Your task to perform on an android device: empty trash in the gmail app Image 0: 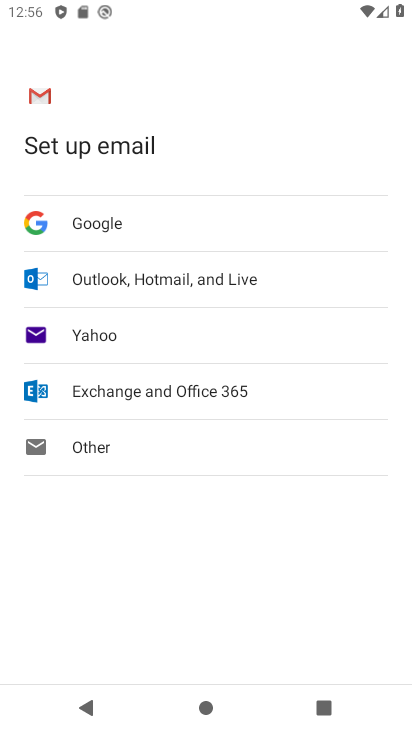
Step 0: press home button
Your task to perform on an android device: empty trash in the gmail app Image 1: 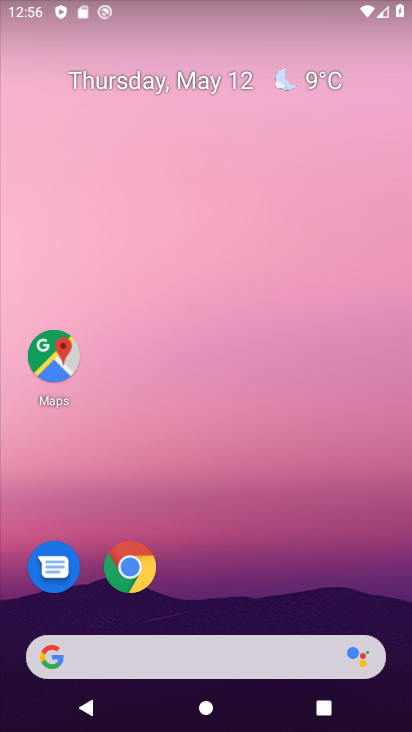
Step 1: drag from (216, 616) to (202, 11)
Your task to perform on an android device: empty trash in the gmail app Image 2: 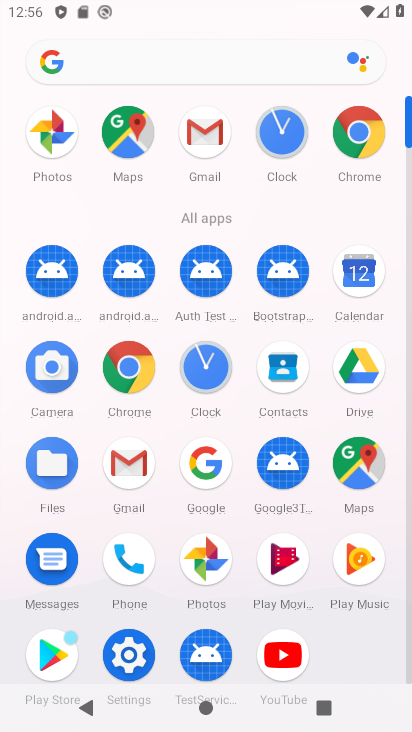
Step 2: click (124, 450)
Your task to perform on an android device: empty trash in the gmail app Image 3: 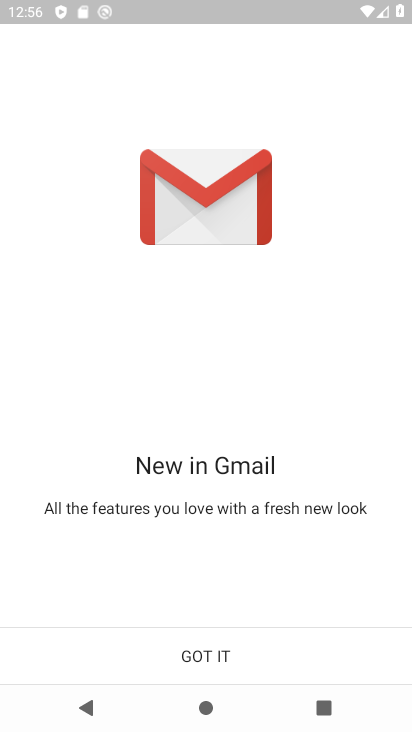
Step 3: click (218, 657)
Your task to perform on an android device: empty trash in the gmail app Image 4: 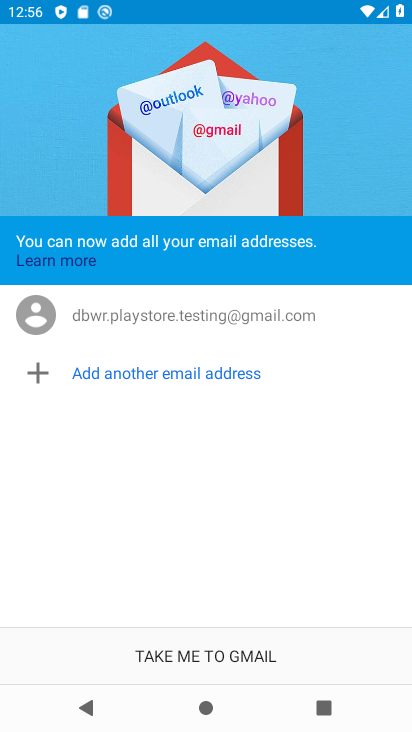
Step 4: click (199, 662)
Your task to perform on an android device: empty trash in the gmail app Image 5: 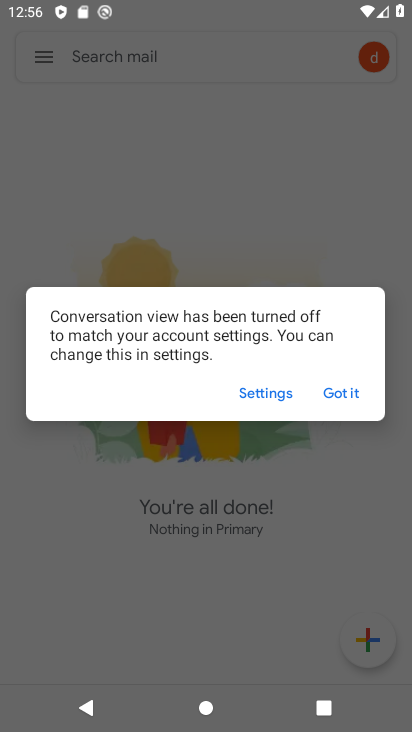
Step 5: click (338, 388)
Your task to perform on an android device: empty trash in the gmail app Image 6: 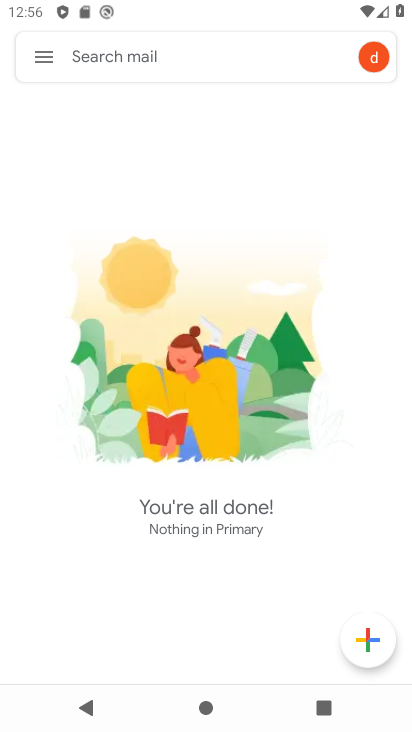
Step 6: click (45, 54)
Your task to perform on an android device: empty trash in the gmail app Image 7: 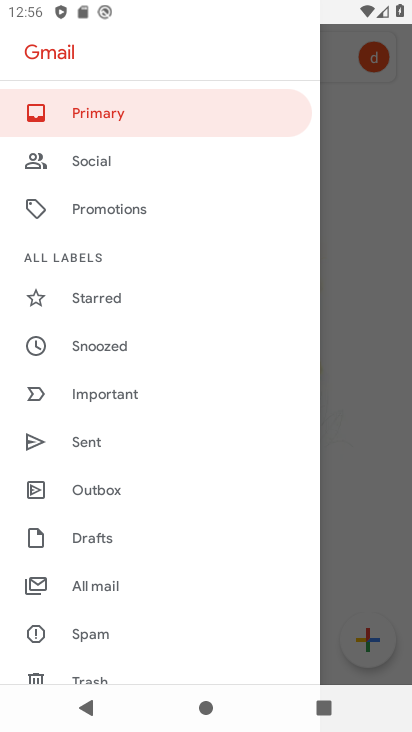
Step 7: click (109, 665)
Your task to perform on an android device: empty trash in the gmail app Image 8: 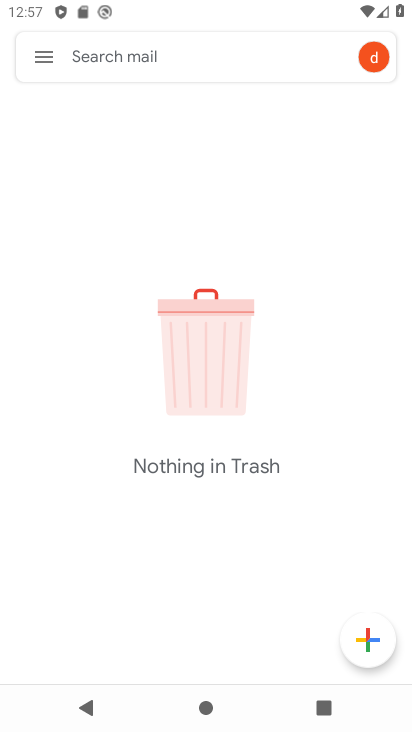
Step 8: task complete